Your task to perform on an android device: move an email to a new category in the gmail app Image 0: 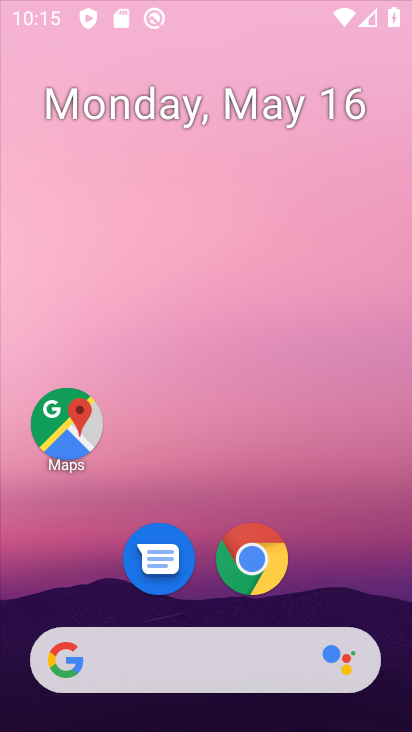
Step 0: drag from (274, 259) to (254, 45)
Your task to perform on an android device: move an email to a new category in the gmail app Image 1: 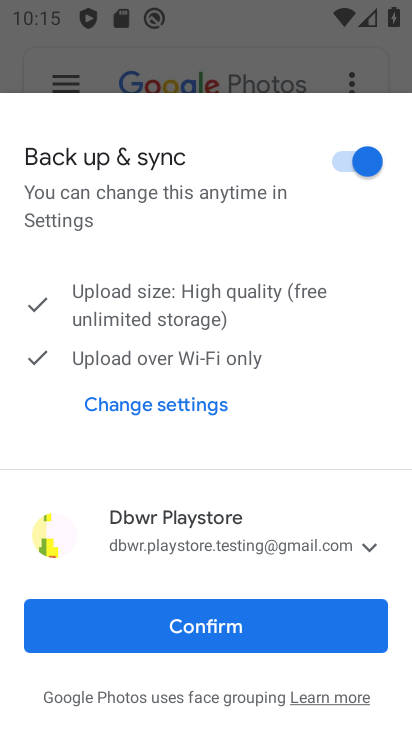
Step 1: press back button
Your task to perform on an android device: move an email to a new category in the gmail app Image 2: 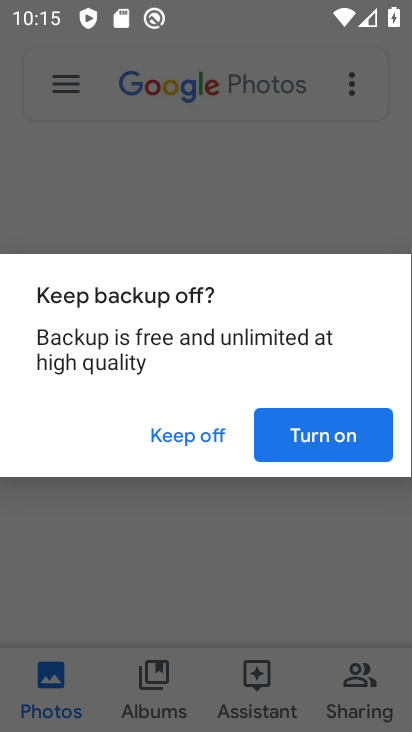
Step 2: press back button
Your task to perform on an android device: move an email to a new category in the gmail app Image 3: 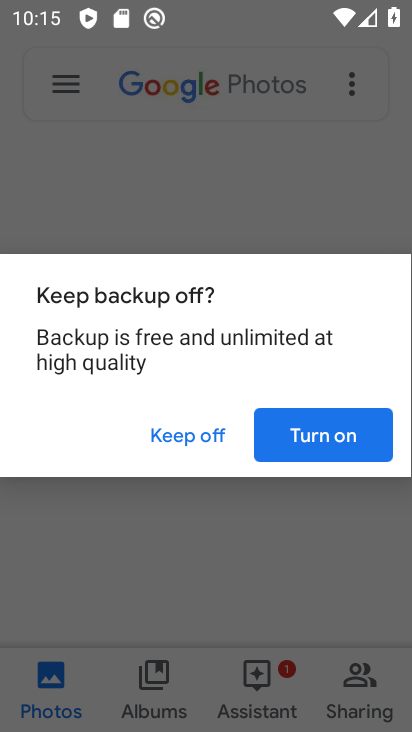
Step 3: press home button
Your task to perform on an android device: move an email to a new category in the gmail app Image 4: 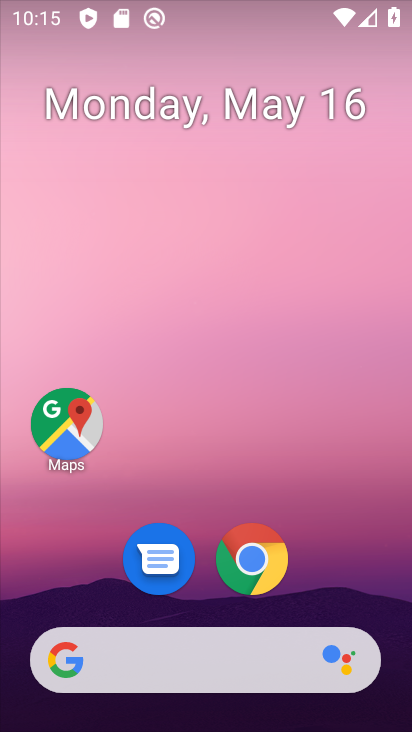
Step 4: drag from (293, 387) to (241, 28)
Your task to perform on an android device: move an email to a new category in the gmail app Image 5: 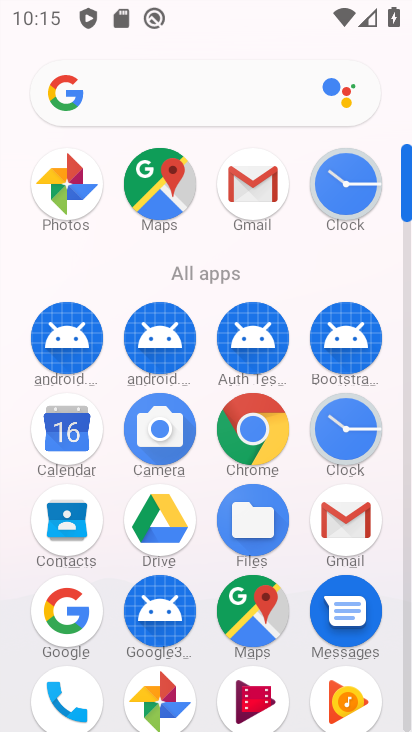
Step 5: drag from (1, 513) to (0, 235)
Your task to perform on an android device: move an email to a new category in the gmail app Image 6: 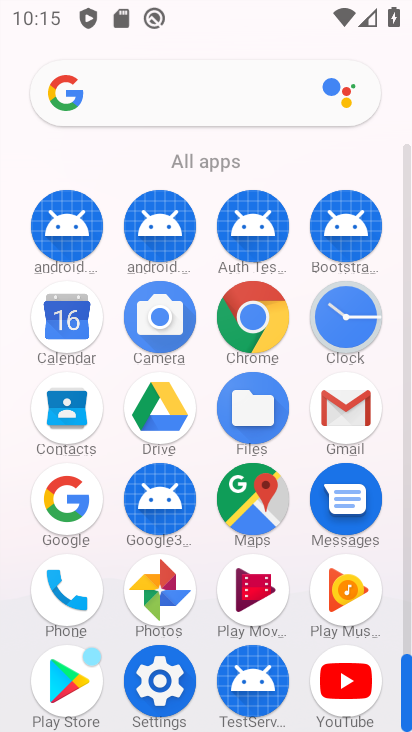
Step 6: click (346, 400)
Your task to perform on an android device: move an email to a new category in the gmail app Image 7: 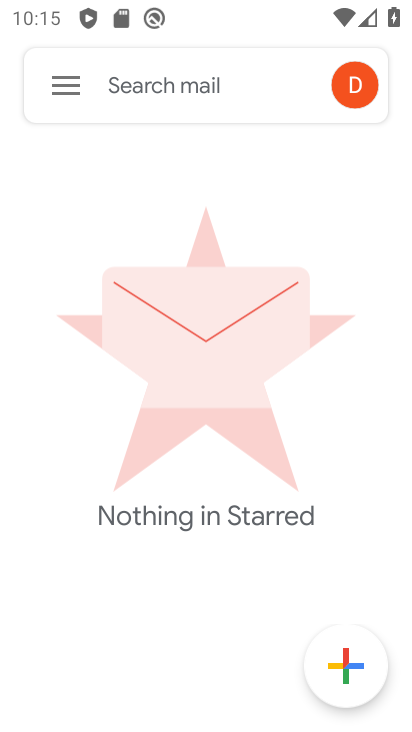
Step 7: click (66, 77)
Your task to perform on an android device: move an email to a new category in the gmail app Image 8: 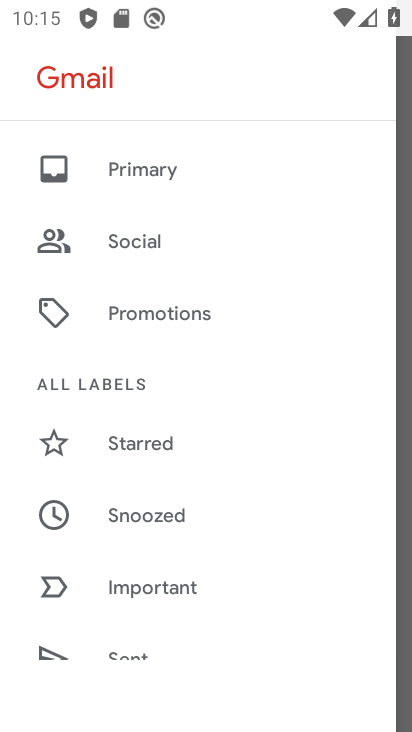
Step 8: drag from (198, 609) to (202, 230)
Your task to perform on an android device: move an email to a new category in the gmail app Image 9: 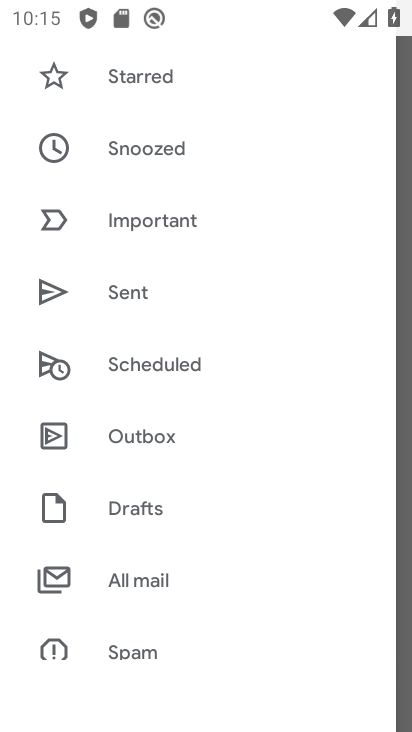
Step 9: click (165, 573)
Your task to perform on an android device: move an email to a new category in the gmail app Image 10: 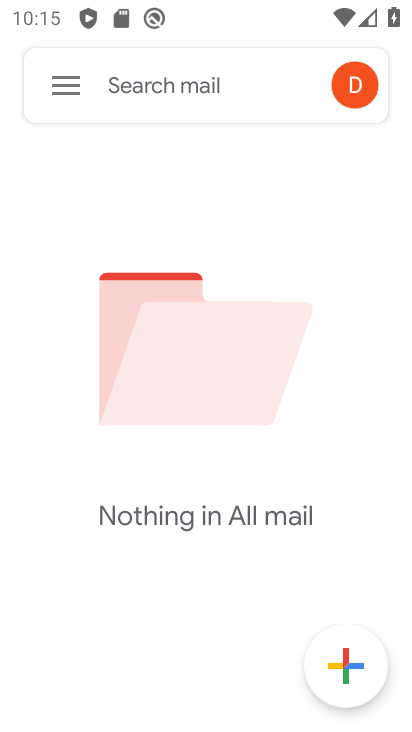
Step 10: click (71, 74)
Your task to perform on an android device: move an email to a new category in the gmail app Image 11: 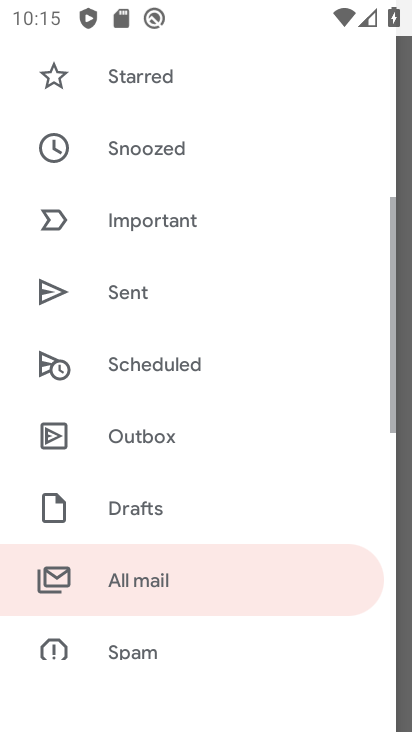
Step 11: drag from (255, 184) to (256, 647)
Your task to perform on an android device: move an email to a new category in the gmail app Image 12: 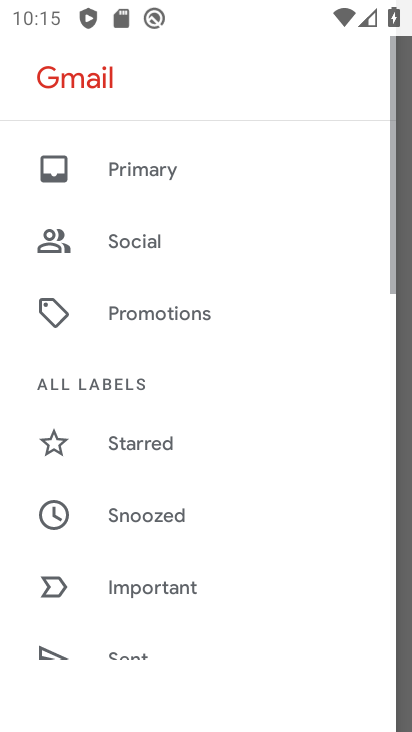
Step 12: click (156, 141)
Your task to perform on an android device: move an email to a new category in the gmail app Image 13: 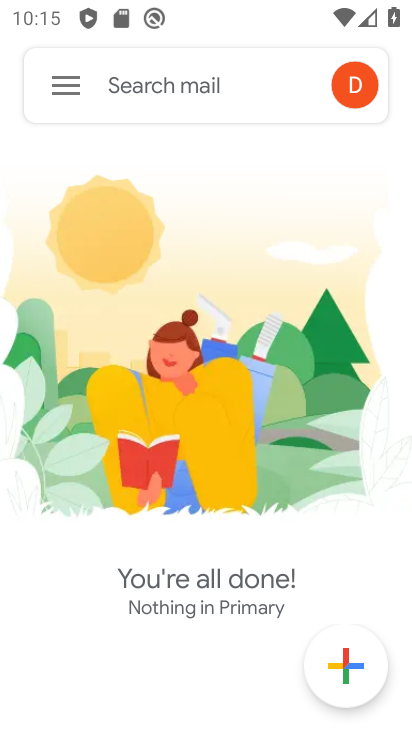
Step 13: click (61, 71)
Your task to perform on an android device: move an email to a new category in the gmail app Image 14: 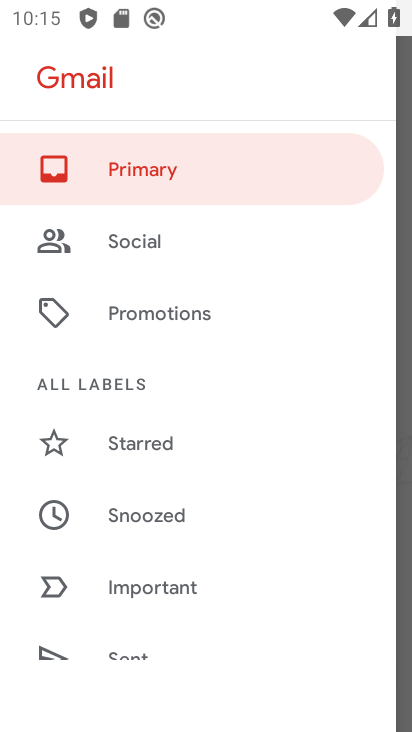
Step 14: drag from (214, 541) to (216, 242)
Your task to perform on an android device: move an email to a new category in the gmail app Image 15: 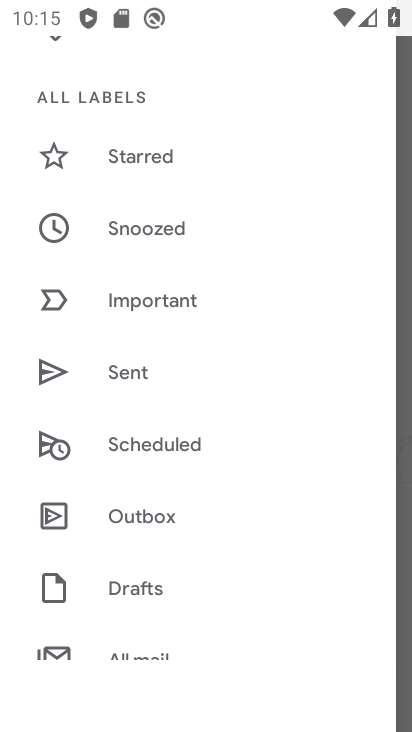
Step 15: drag from (200, 162) to (201, 536)
Your task to perform on an android device: move an email to a new category in the gmail app Image 16: 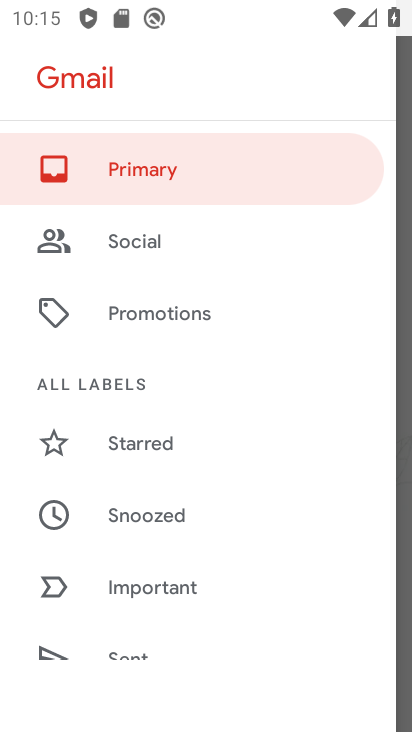
Step 16: drag from (236, 505) to (233, 149)
Your task to perform on an android device: move an email to a new category in the gmail app Image 17: 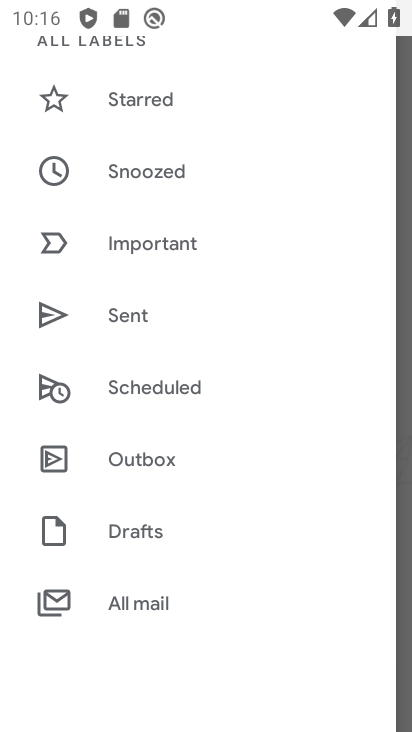
Step 17: click (138, 591)
Your task to perform on an android device: move an email to a new category in the gmail app Image 18: 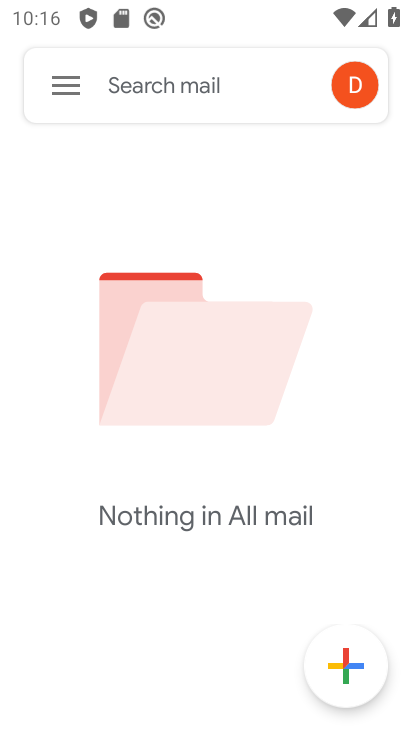
Step 18: click (75, 75)
Your task to perform on an android device: move an email to a new category in the gmail app Image 19: 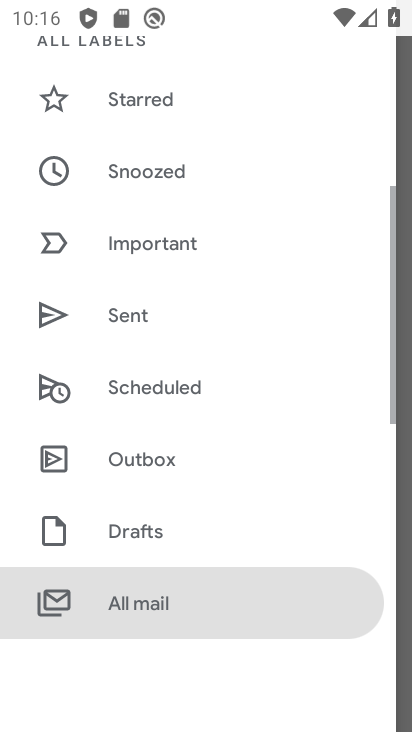
Step 19: drag from (214, 261) to (209, 629)
Your task to perform on an android device: move an email to a new category in the gmail app Image 20: 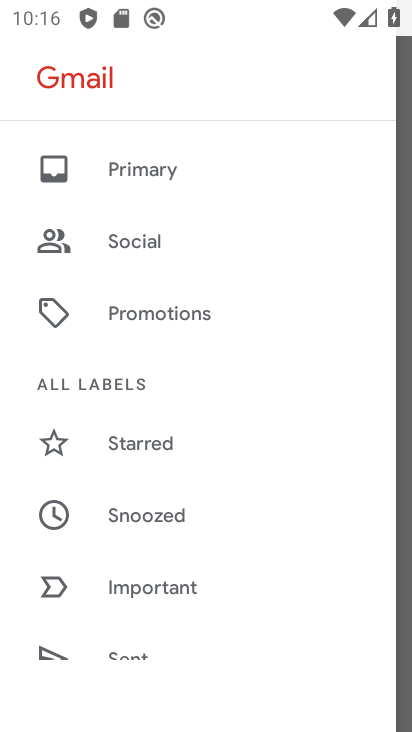
Step 20: click (182, 171)
Your task to perform on an android device: move an email to a new category in the gmail app Image 21: 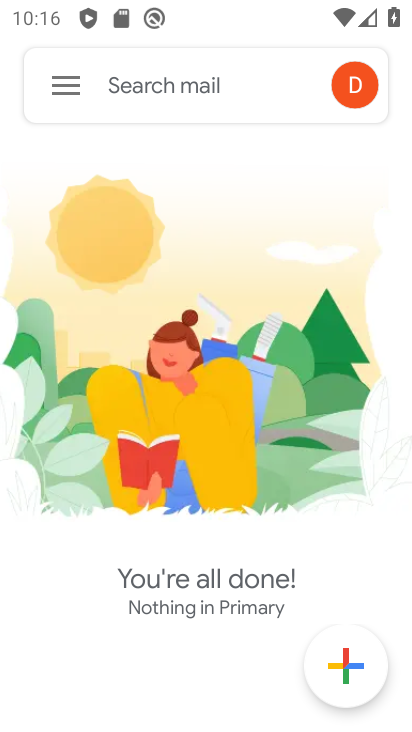
Step 21: task complete